Your task to perform on an android device: Search for sushi restaurants on Maps Image 0: 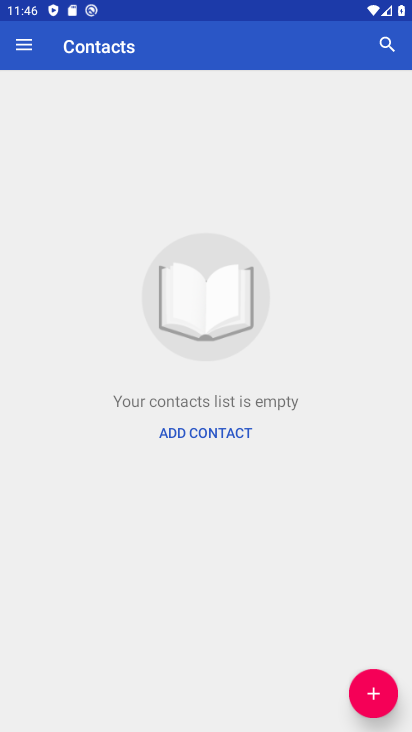
Step 0: press home button
Your task to perform on an android device: Search for sushi restaurants on Maps Image 1: 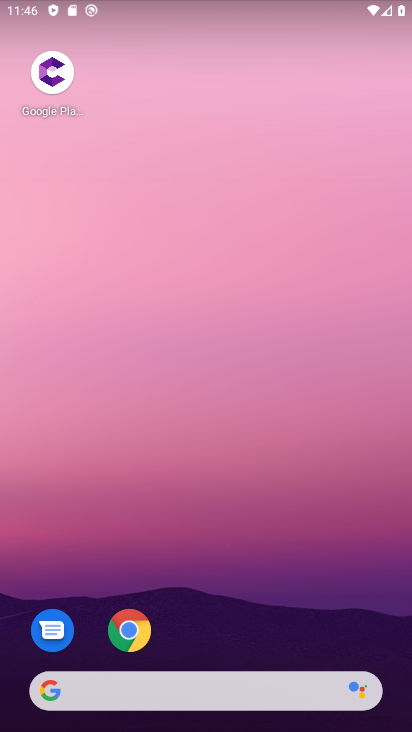
Step 1: drag from (207, 519) to (255, 173)
Your task to perform on an android device: Search for sushi restaurants on Maps Image 2: 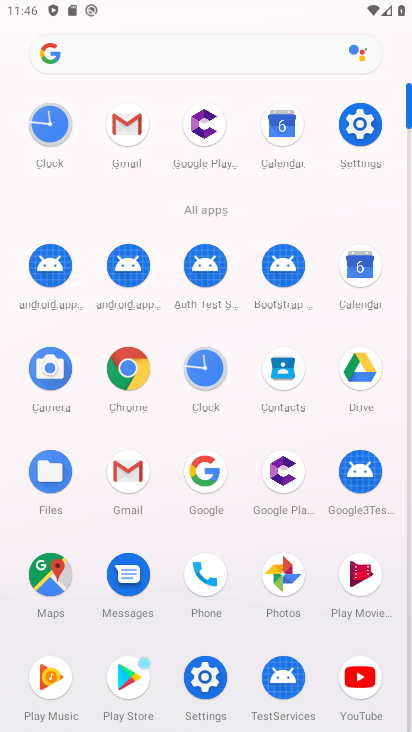
Step 2: click (131, 480)
Your task to perform on an android device: Search for sushi restaurants on Maps Image 3: 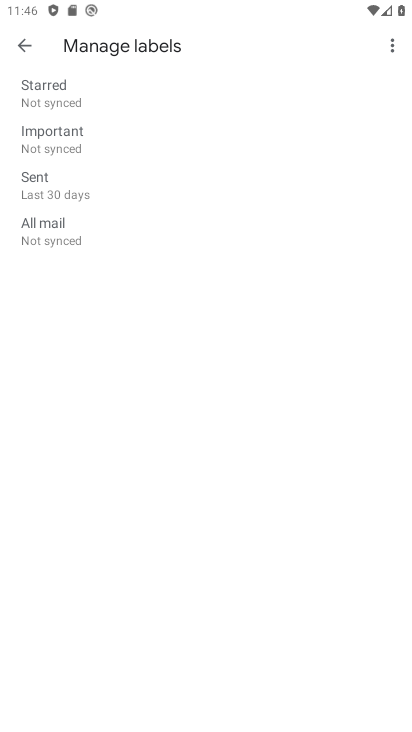
Step 3: click (23, 33)
Your task to perform on an android device: Search for sushi restaurants on Maps Image 4: 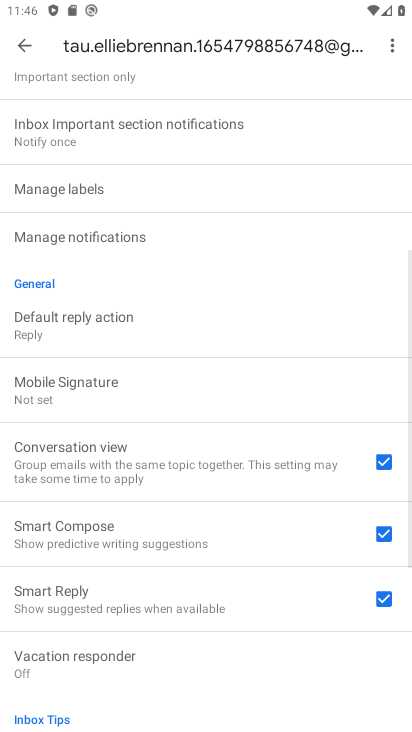
Step 4: press home button
Your task to perform on an android device: Search for sushi restaurants on Maps Image 5: 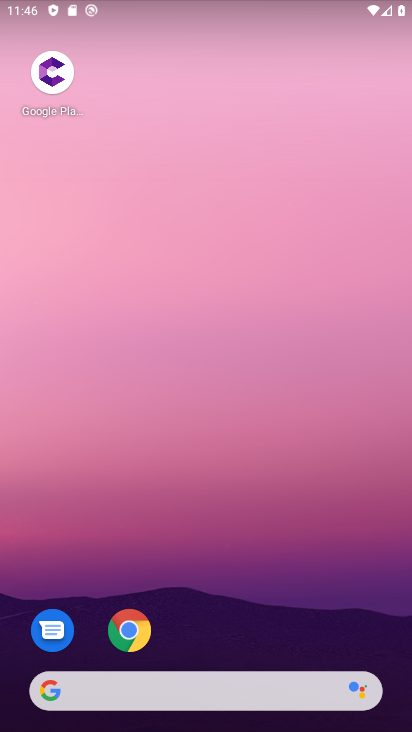
Step 5: drag from (245, 599) to (254, 12)
Your task to perform on an android device: Search for sushi restaurants on Maps Image 6: 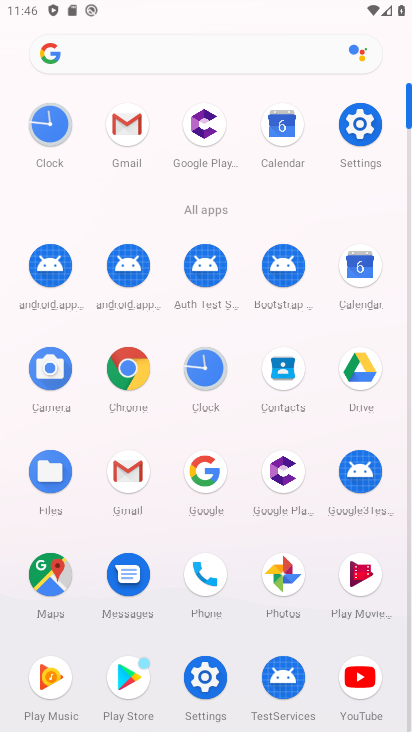
Step 6: click (54, 572)
Your task to perform on an android device: Search for sushi restaurants on Maps Image 7: 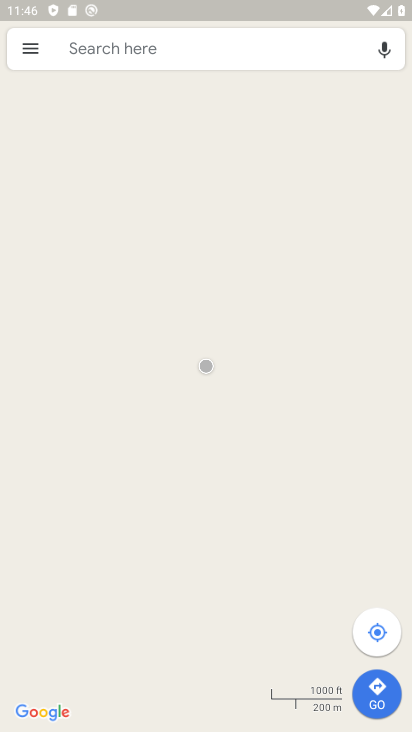
Step 7: click (239, 38)
Your task to perform on an android device: Search for sushi restaurants on Maps Image 8: 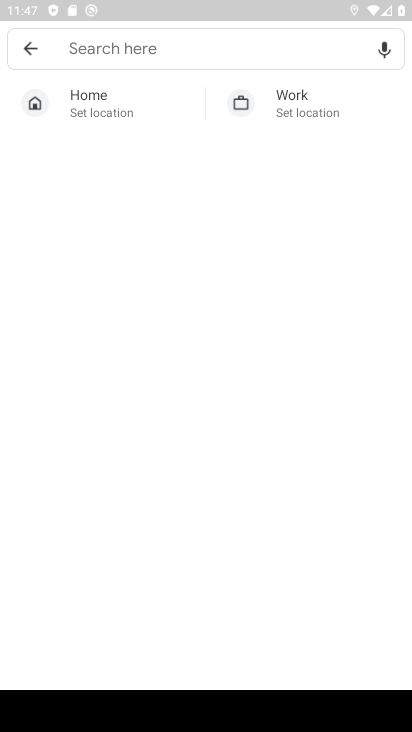
Step 8: type "SUshi restaurants"
Your task to perform on an android device: Search for sushi restaurants on Maps Image 9: 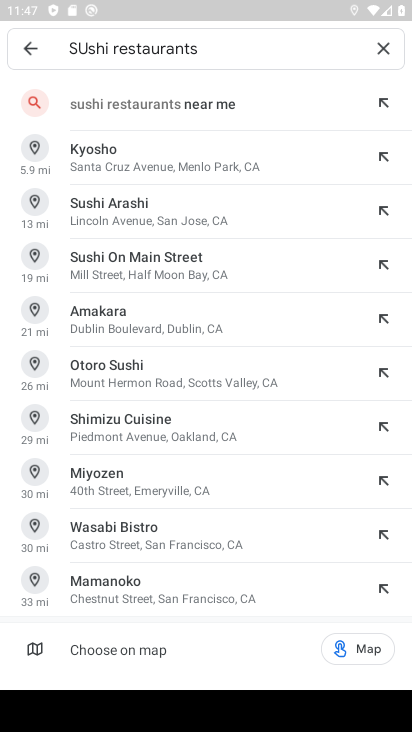
Step 9: click (208, 102)
Your task to perform on an android device: Search for sushi restaurants on Maps Image 10: 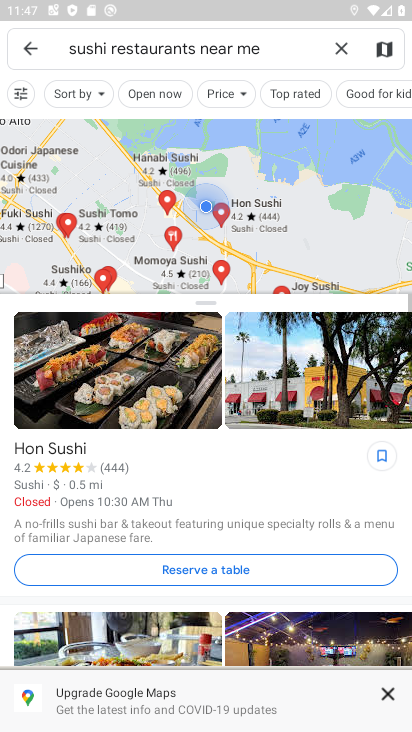
Step 10: task complete